Your task to perform on an android device: turn on improve location accuracy Image 0: 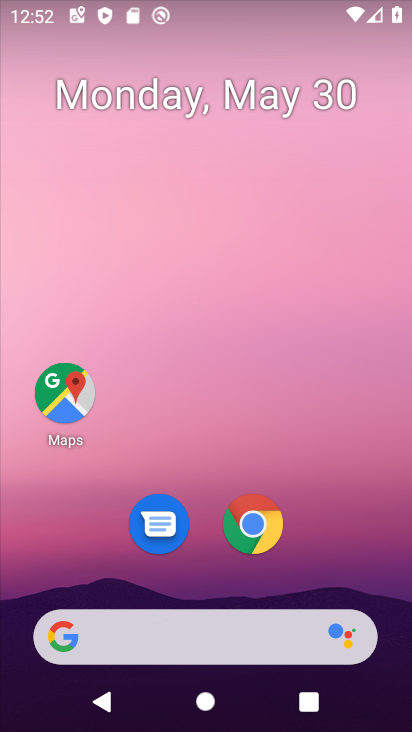
Step 0: drag from (218, 460) to (250, 10)
Your task to perform on an android device: turn on improve location accuracy Image 1: 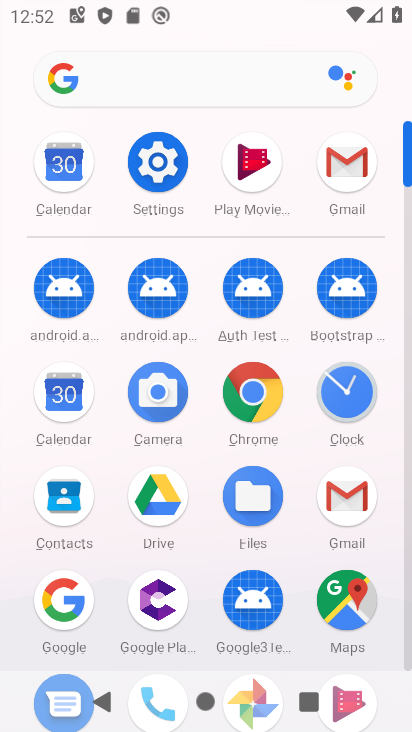
Step 1: click (163, 161)
Your task to perform on an android device: turn on improve location accuracy Image 2: 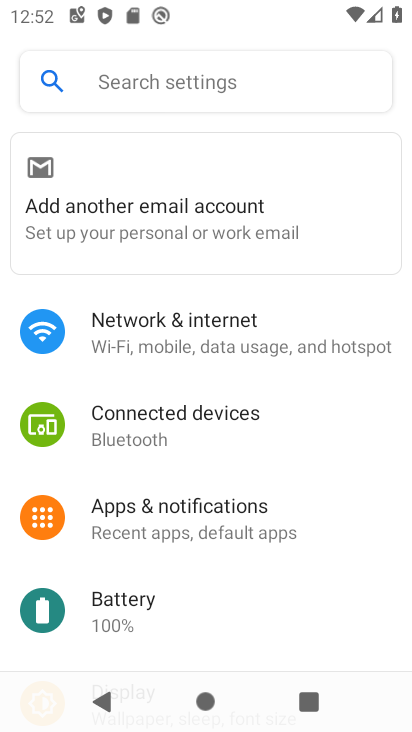
Step 2: drag from (230, 589) to (251, 0)
Your task to perform on an android device: turn on improve location accuracy Image 3: 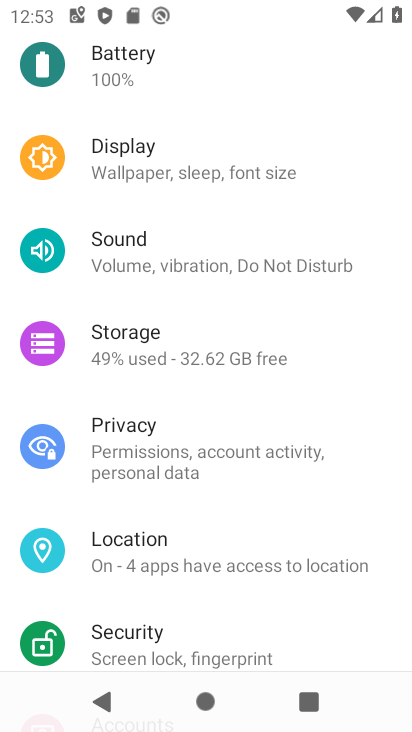
Step 3: click (211, 557)
Your task to perform on an android device: turn on improve location accuracy Image 4: 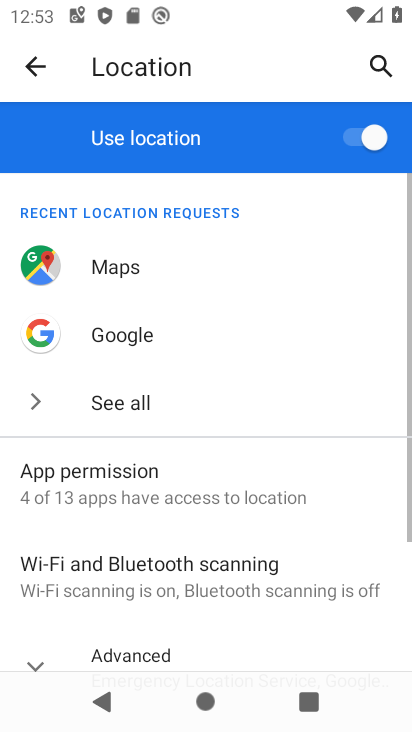
Step 4: drag from (257, 484) to (284, 225)
Your task to perform on an android device: turn on improve location accuracy Image 5: 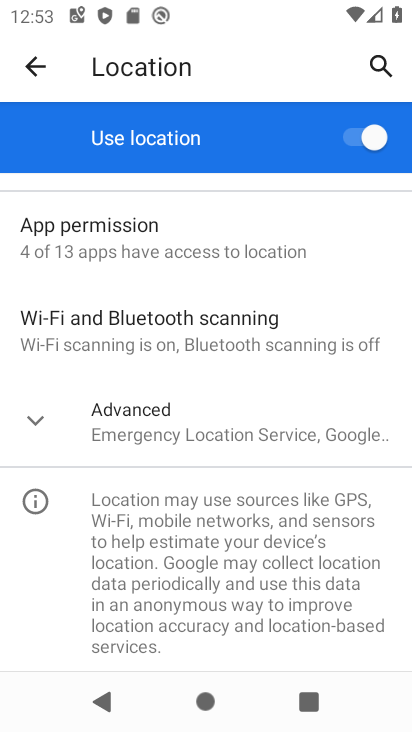
Step 5: click (33, 421)
Your task to perform on an android device: turn on improve location accuracy Image 6: 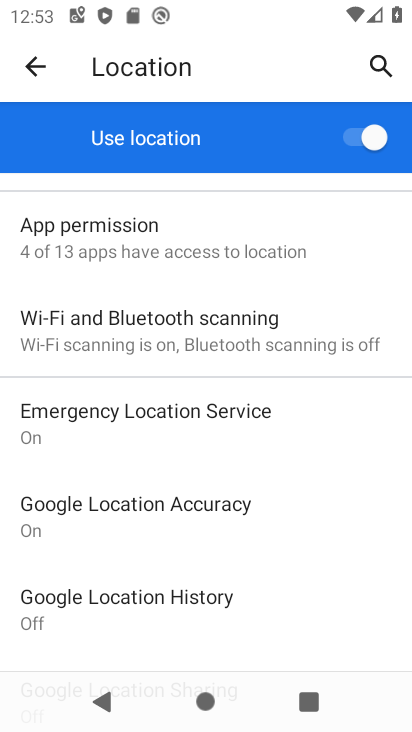
Step 6: click (213, 519)
Your task to perform on an android device: turn on improve location accuracy Image 7: 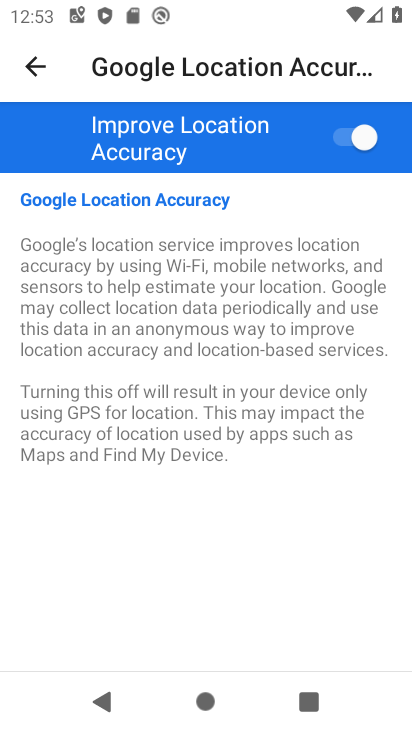
Step 7: task complete